Your task to perform on an android device: open chrome and create a bookmark for the current page Image 0: 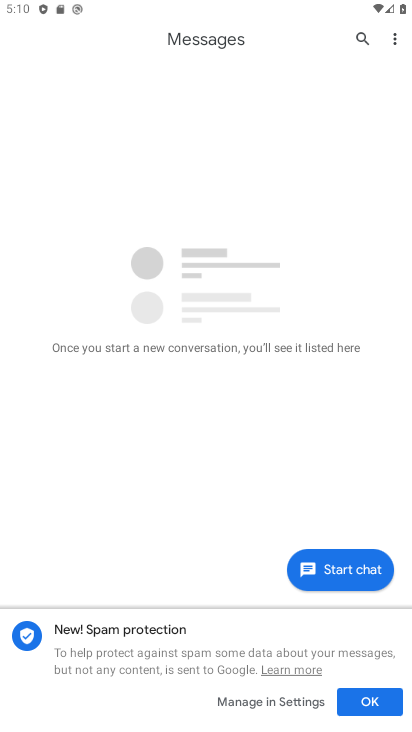
Step 0: press home button
Your task to perform on an android device: open chrome and create a bookmark for the current page Image 1: 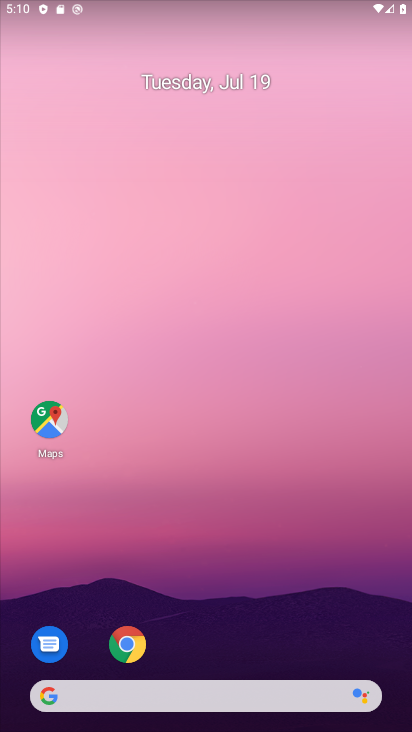
Step 1: drag from (300, 638) to (255, 246)
Your task to perform on an android device: open chrome and create a bookmark for the current page Image 2: 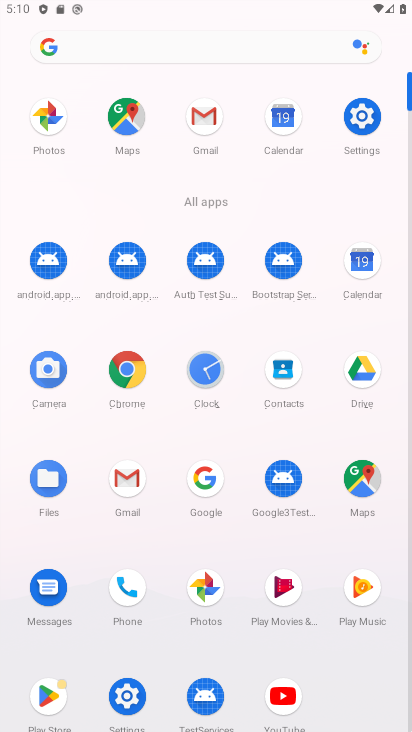
Step 2: click (131, 366)
Your task to perform on an android device: open chrome and create a bookmark for the current page Image 3: 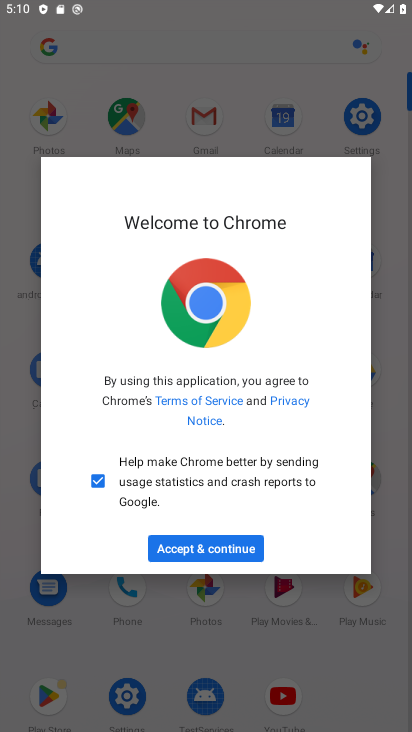
Step 3: click (232, 541)
Your task to perform on an android device: open chrome and create a bookmark for the current page Image 4: 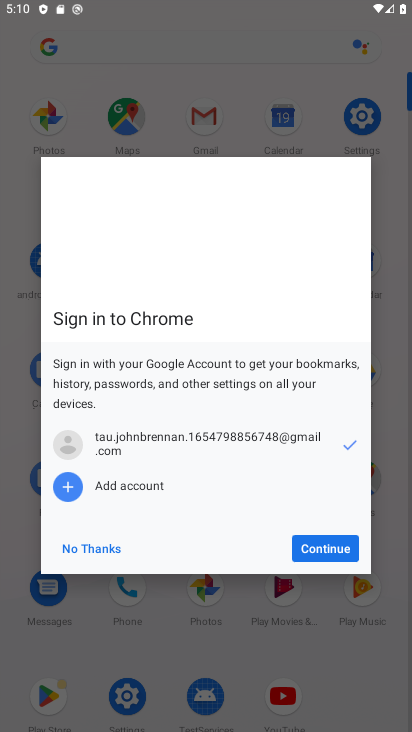
Step 4: click (314, 549)
Your task to perform on an android device: open chrome and create a bookmark for the current page Image 5: 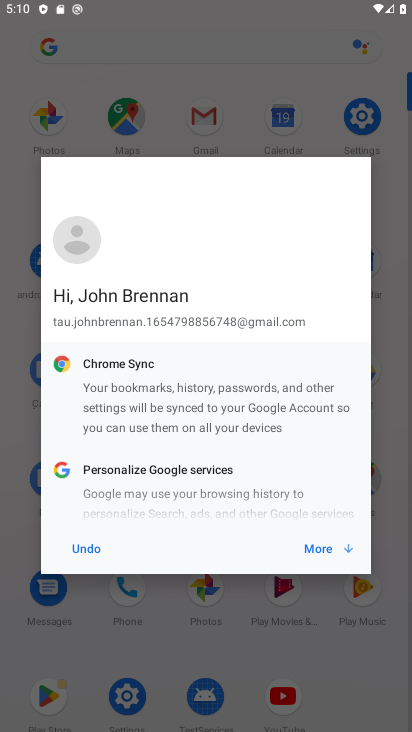
Step 5: click (335, 544)
Your task to perform on an android device: open chrome and create a bookmark for the current page Image 6: 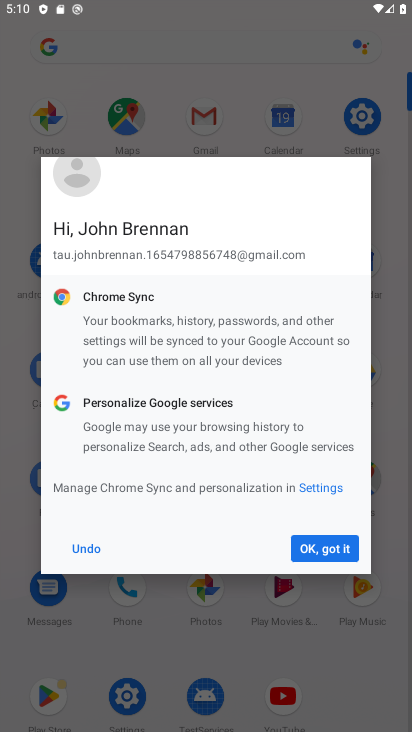
Step 6: click (325, 555)
Your task to perform on an android device: open chrome and create a bookmark for the current page Image 7: 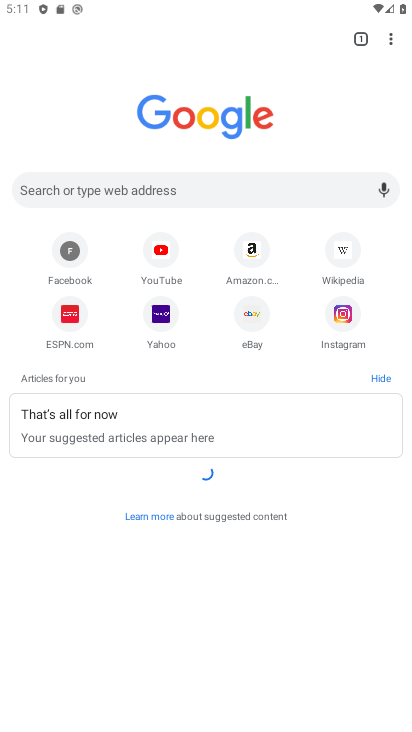
Step 7: click (388, 41)
Your task to perform on an android device: open chrome and create a bookmark for the current page Image 8: 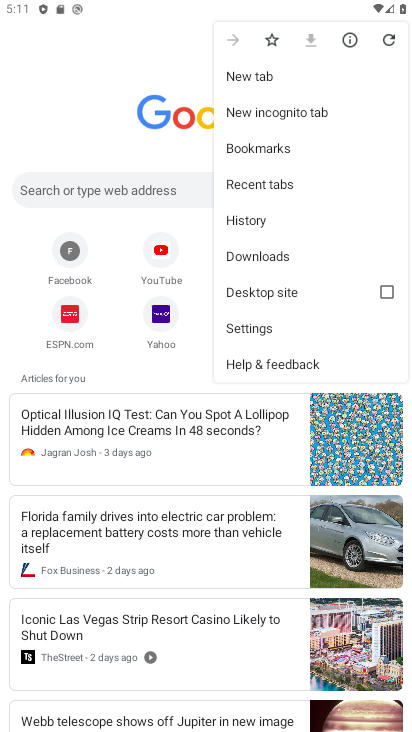
Step 8: click (273, 38)
Your task to perform on an android device: open chrome and create a bookmark for the current page Image 9: 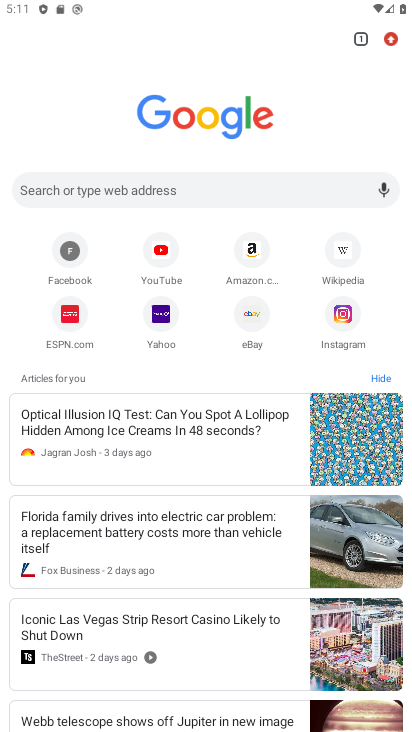
Step 9: task complete